Your task to perform on an android device: stop showing notifications on the lock screen Image 0: 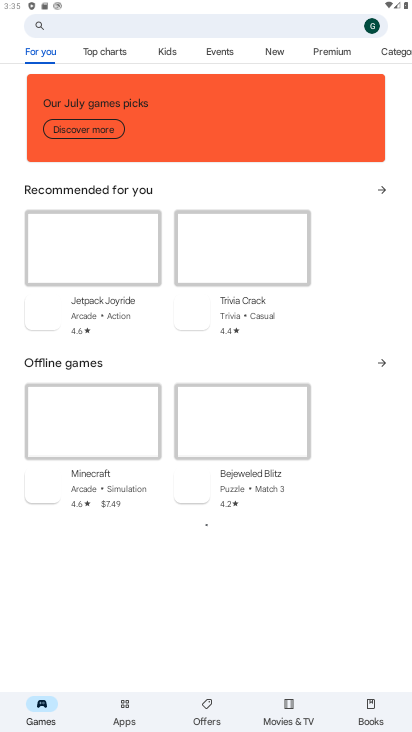
Step 0: press home button
Your task to perform on an android device: stop showing notifications on the lock screen Image 1: 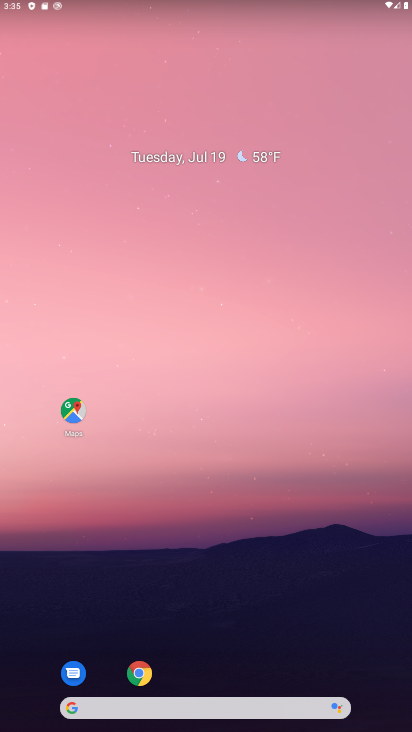
Step 1: drag from (198, 582) to (233, 133)
Your task to perform on an android device: stop showing notifications on the lock screen Image 2: 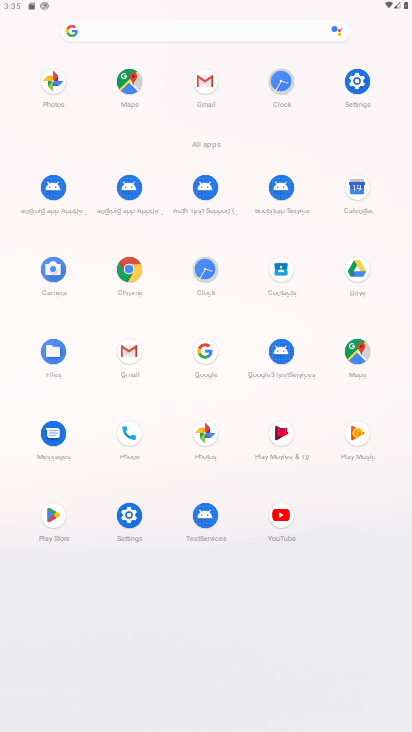
Step 2: click (359, 78)
Your task to perform on an android device: stop showing notifications on the lock screen Image 3: 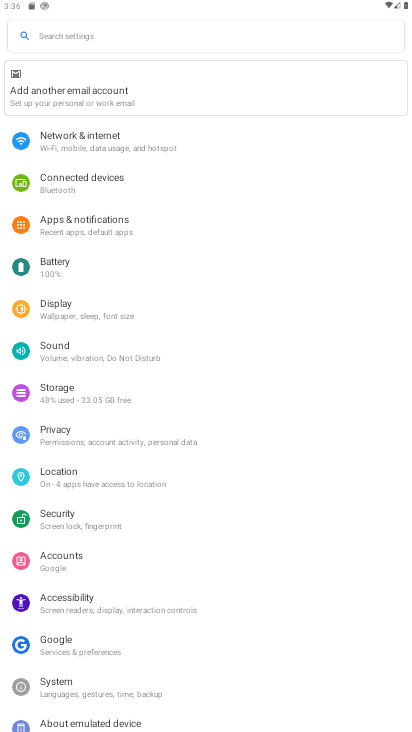
Step 3: click (109, 226)
Your task to perform on an android device: stop showing notifications on the lock screen Image 4: 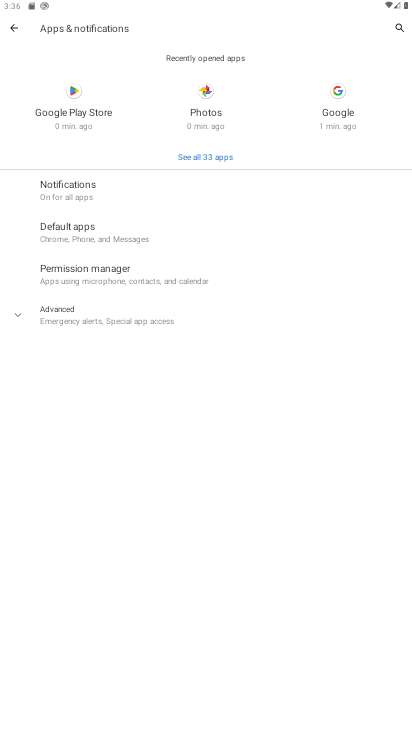
Step 4: click (86, 196)
Your task to perform on an android device: stop showing notifications on the lock screen Image 5: 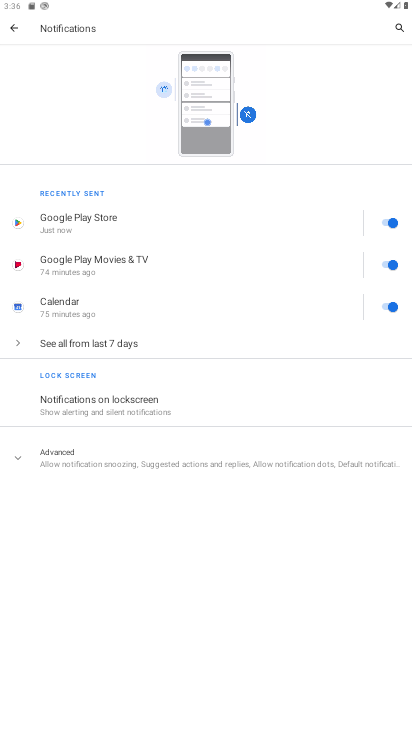
Step 5: click (115, 403)
Your task to perform on an android device: stop showing notifications on the lock screen Image 6: 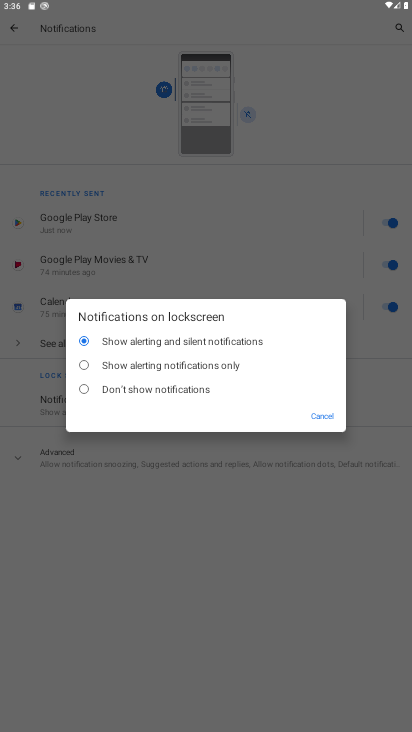
Step 6: click (80, 390)
Your task to perform on an android device: stop showing notifications on the lock screen Image 7: 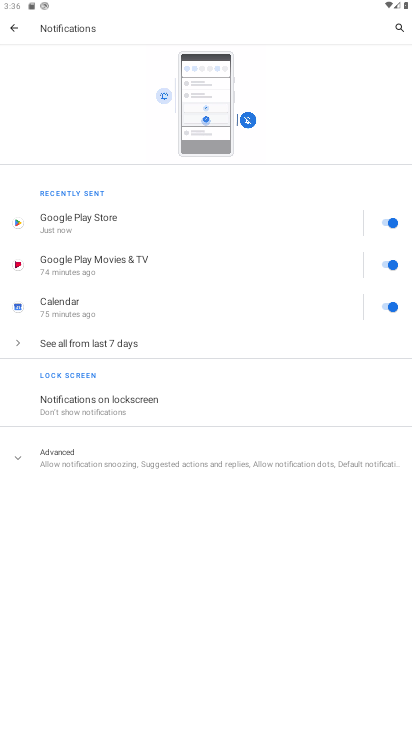
Step 7: task complete